Your task to perform on an android device: open the mobile data screen to see how much data has been used Image 0: 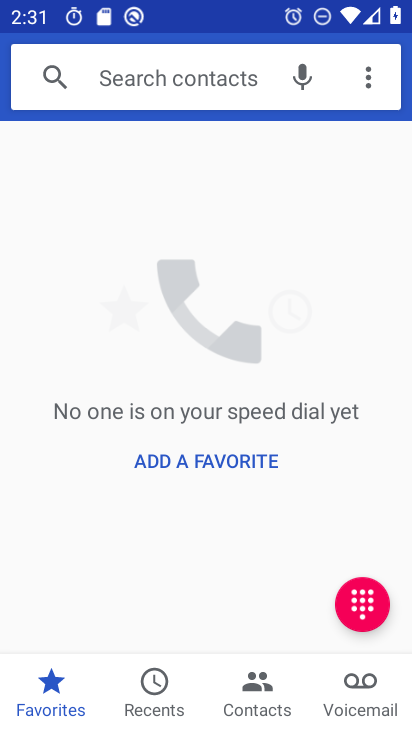
Step 0: press home button
Your task to perform on an android device: open the mobile data screen to see how much data has been used Image 1: 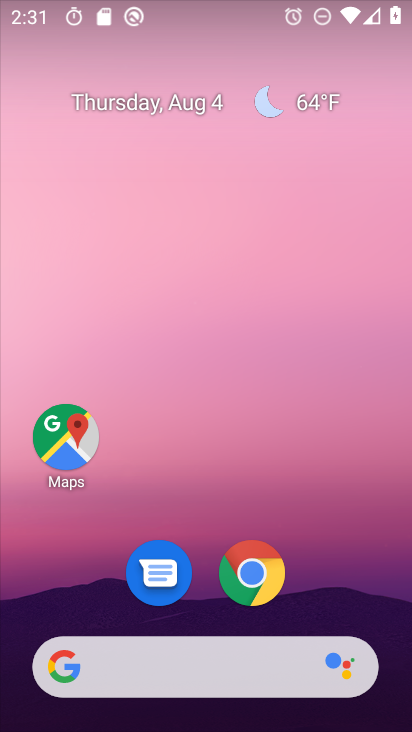
Step 1: drag from (328, 616) to (304, 248)
Your task to perform on an android device: open the mobile data screen to see how much data has been used Image 2: 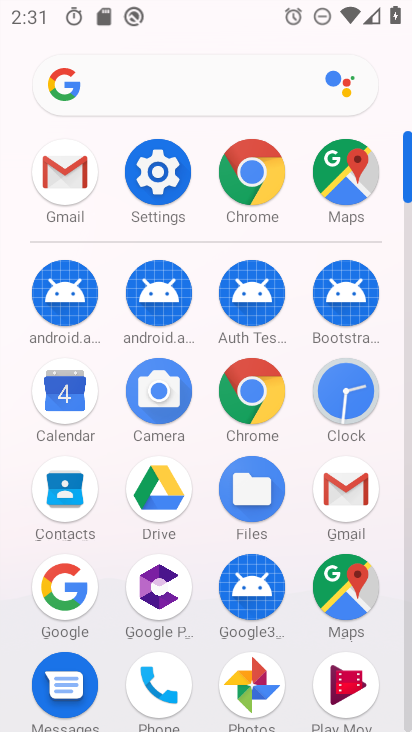
Step 2: click (152, 176)
Your task to perform on an android device: open the mobile data screen to see how much data has been used Image 3: 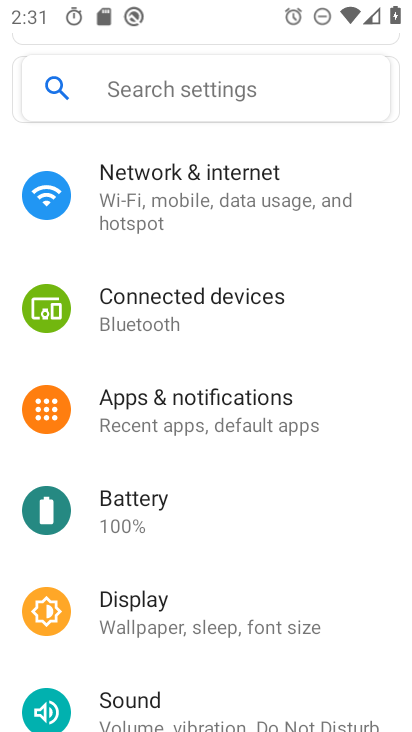
Step 3: click (226, 181)
Your task to perform on an android device: open the mobile data screen to see how much data has been used Image 4: 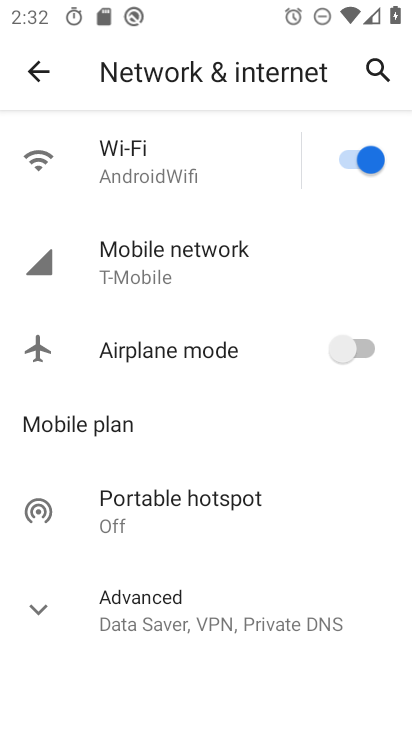
Step 4: click (166, 252)
Your task to perform on an android device: open the mobile data screen to see how much data has been used Image 5: 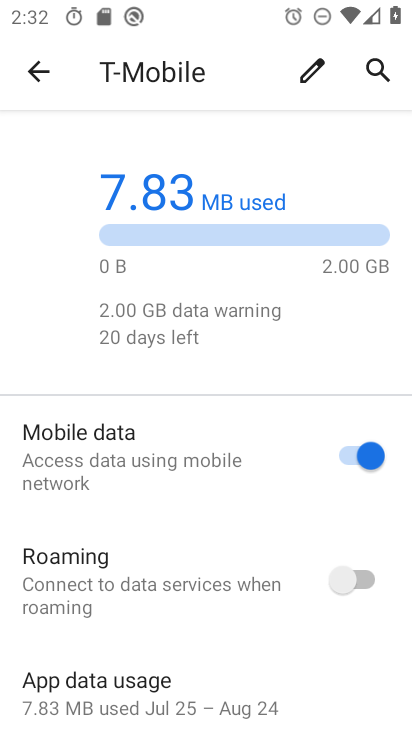
Step 5: task complete